Your task to perform on an android device: Add acer predator to the cart on walmart.com Image 0: 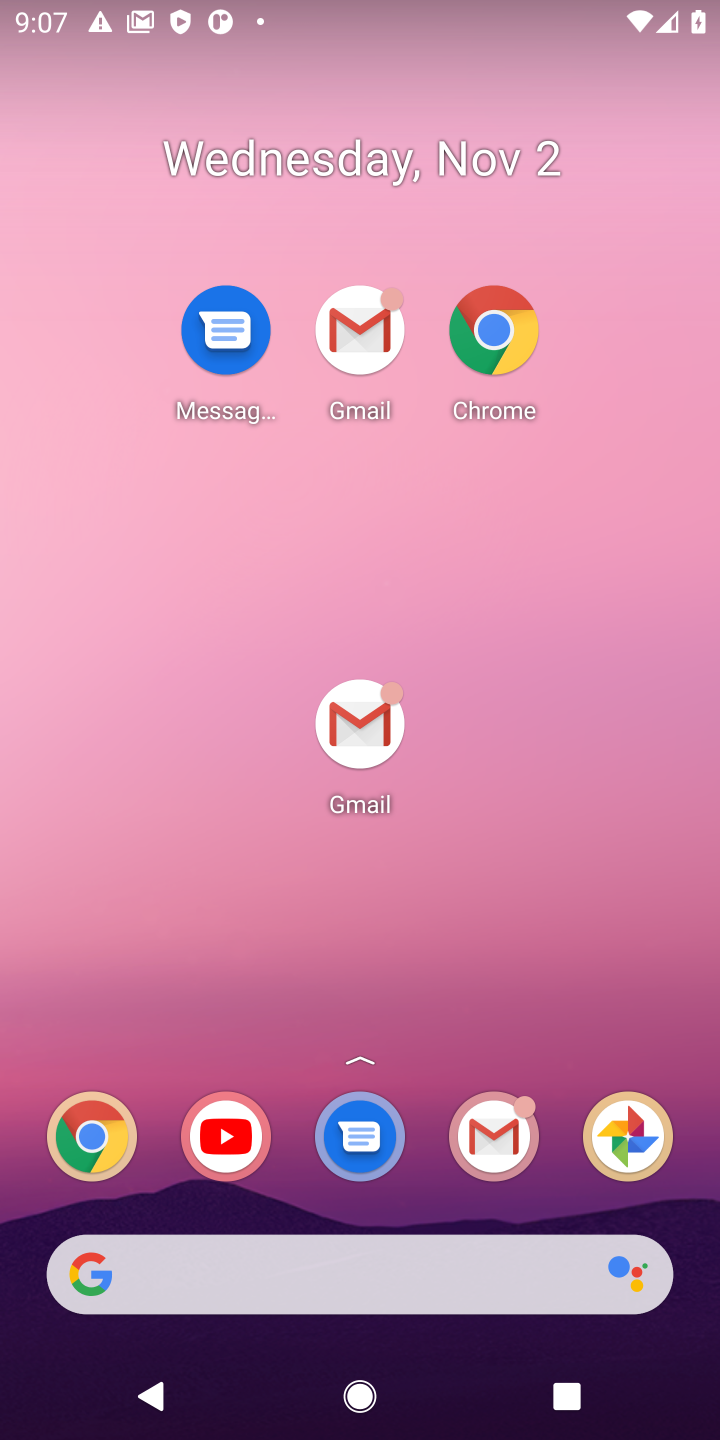
Step 0: drag from (216, 975) to (216, 389)
Your task to perform on an android device: Add acer predator to the cart on walmart.com Image 1: 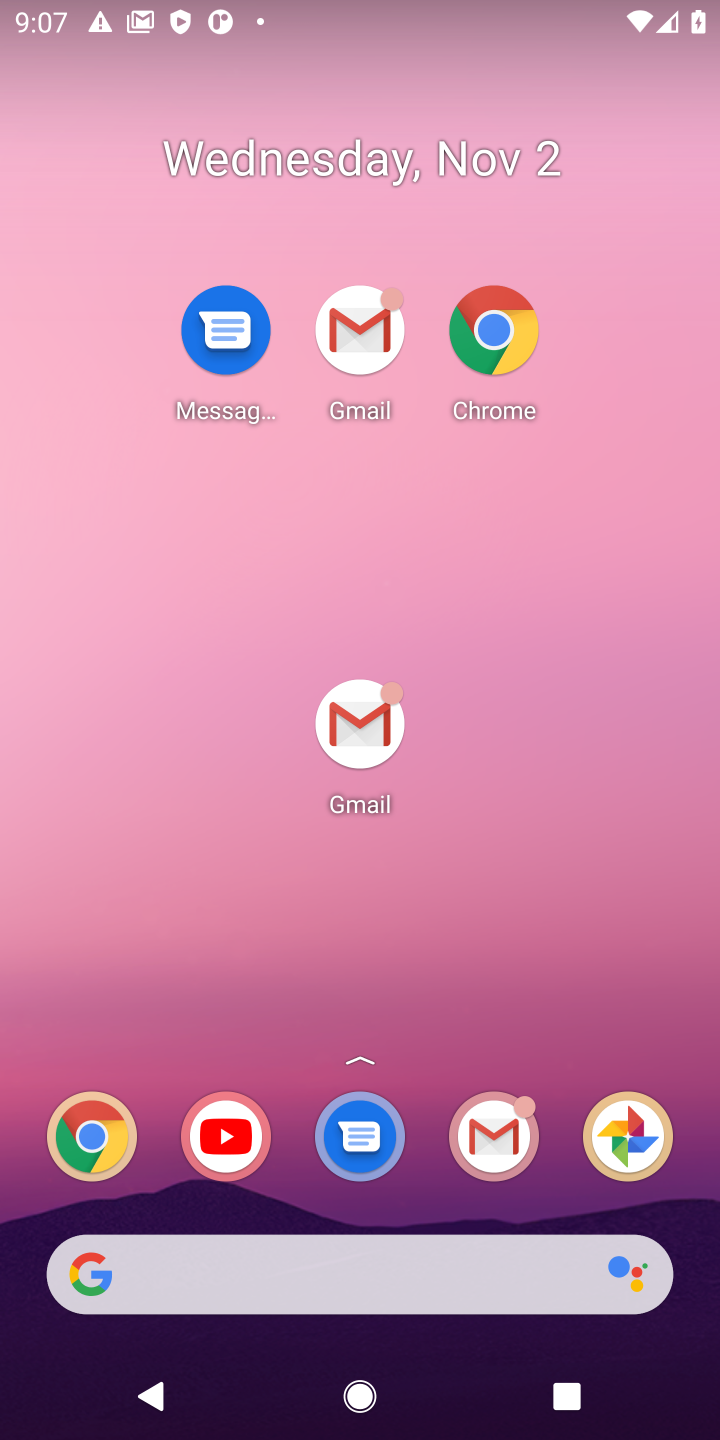
Step 1: drag from (272, 1182) to (283, 7)
Your task to perform on an android device: Add acer predator to the cart on walmart.com Image 2: 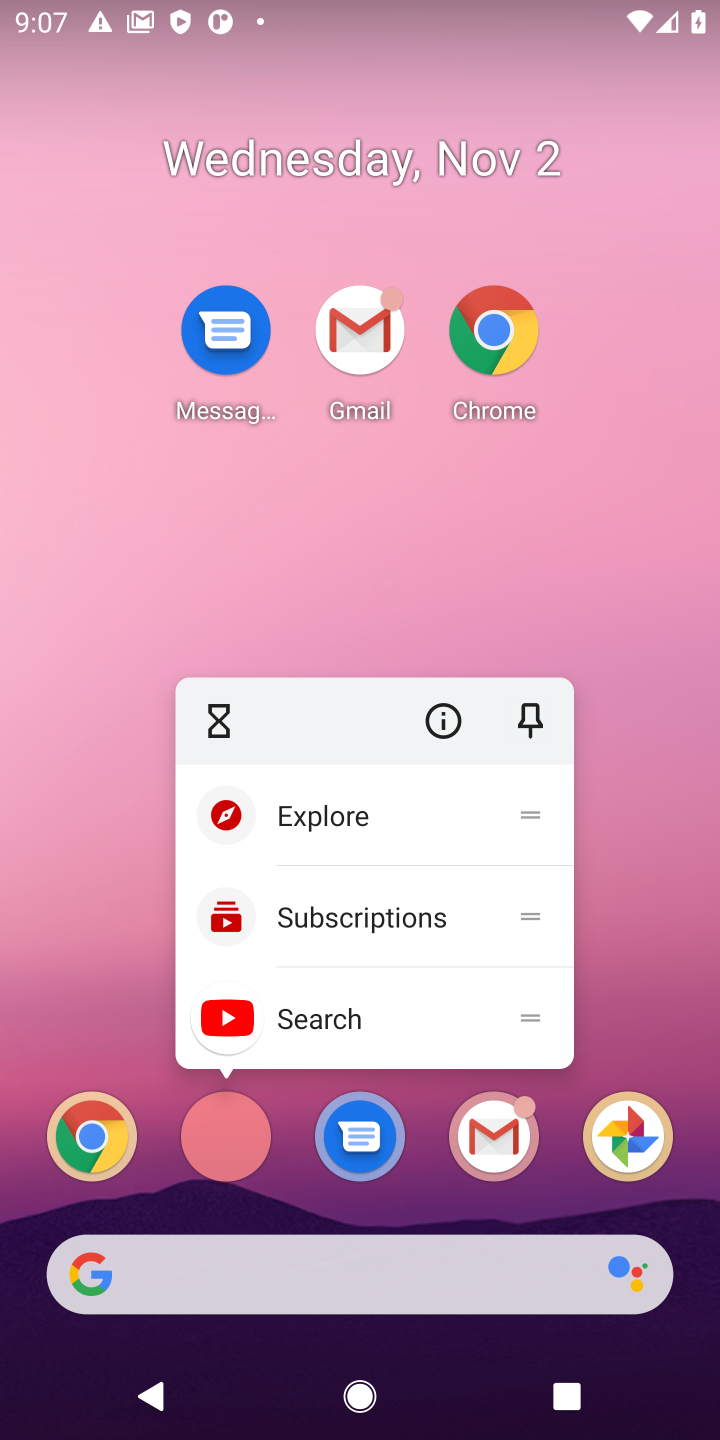
Step 2: click (117, 553)
Your task to perform on an android device: Add acer predator to the cart on walmart.com Image 3: 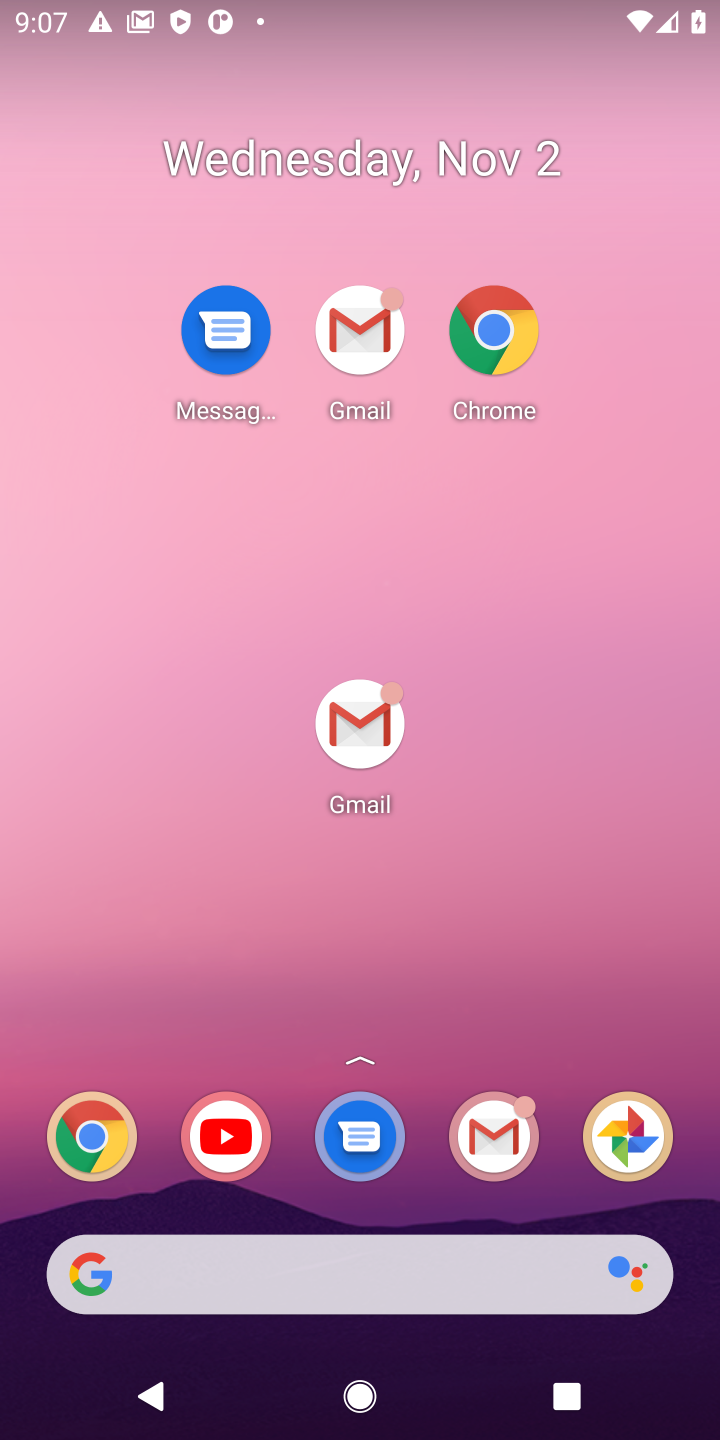
Step 3: drag from (290, 1238) to (277, 756)
Your task to perform on an android device: Add acer predator to the cart on walmart.com Image 4: 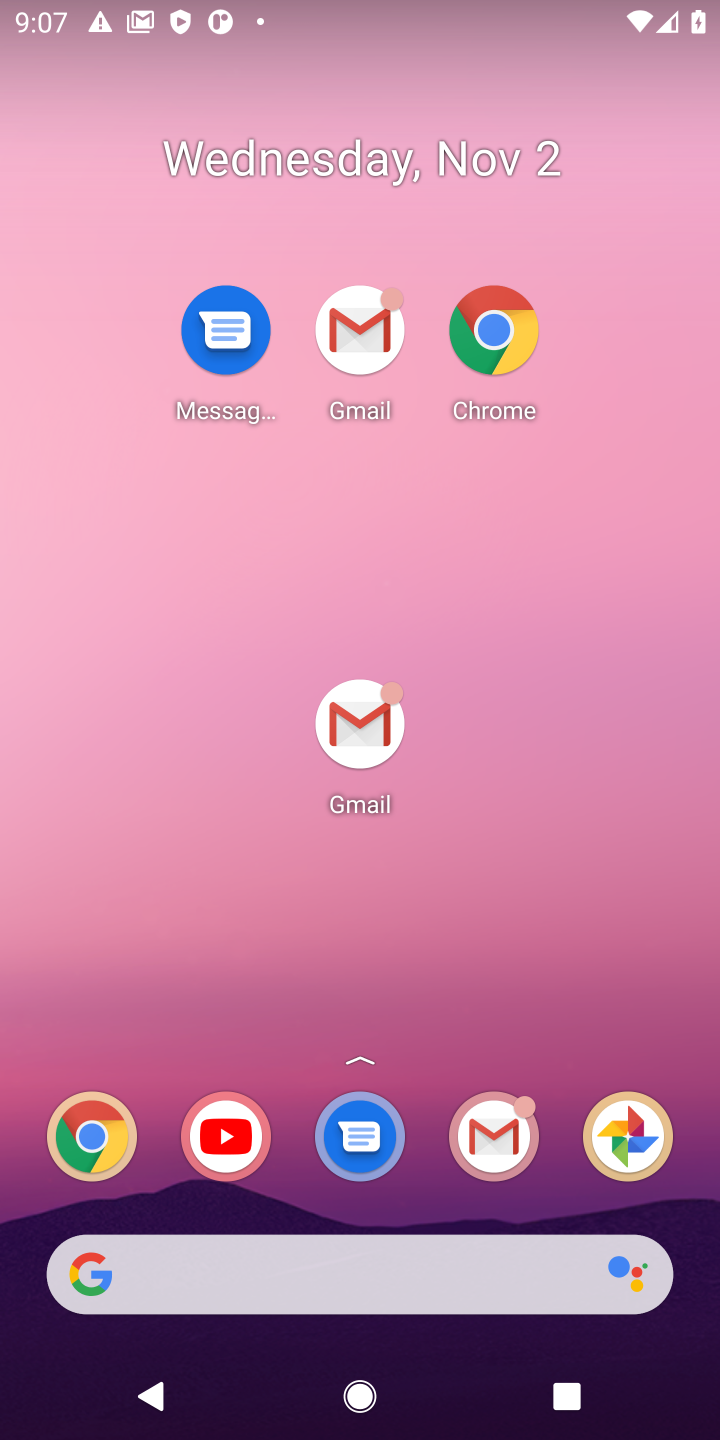
Step 4: drag from (283, 1164) to (310, 282)
Your task to perform on an android device: Add acer predator to the cart on walmart.com Image 5: 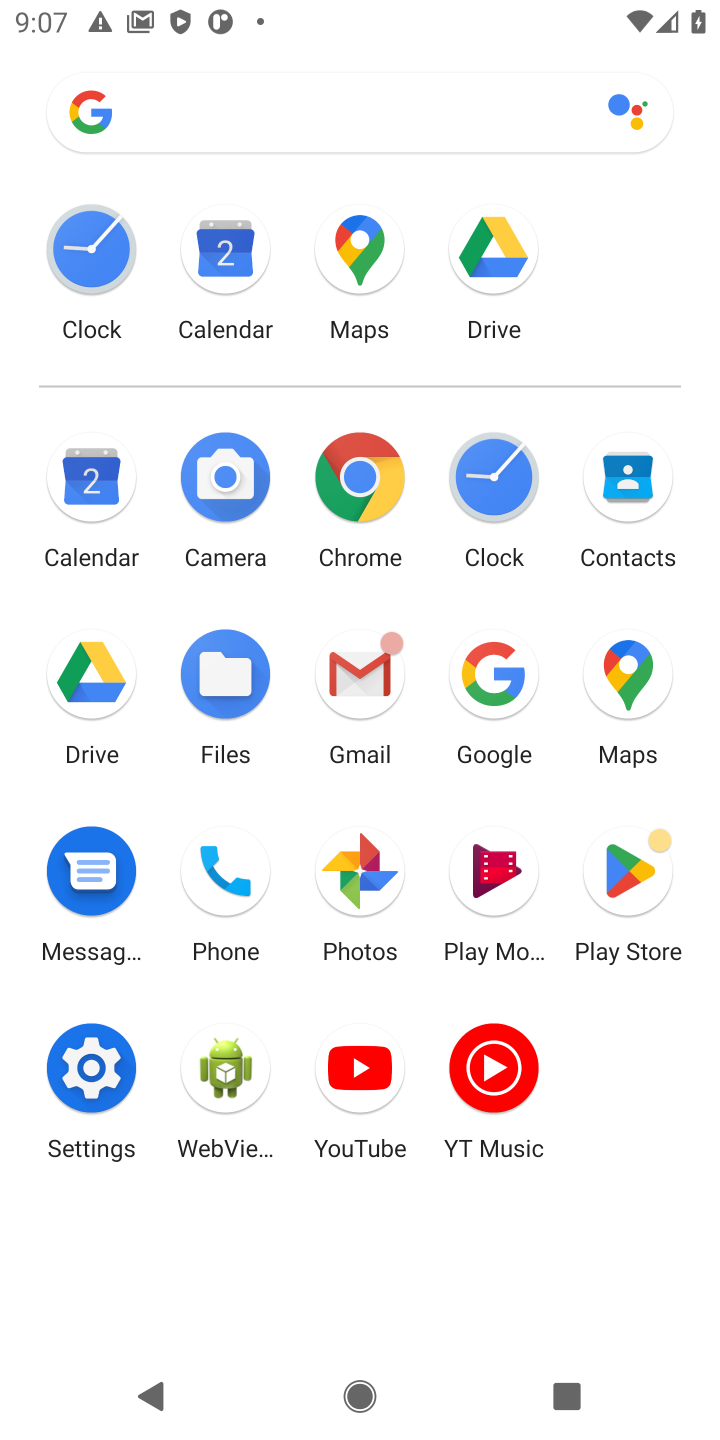
Step 5: click (477, 658)
Your task to perform on an android device: Add acer predator to the cart on walmart.com Image 6: 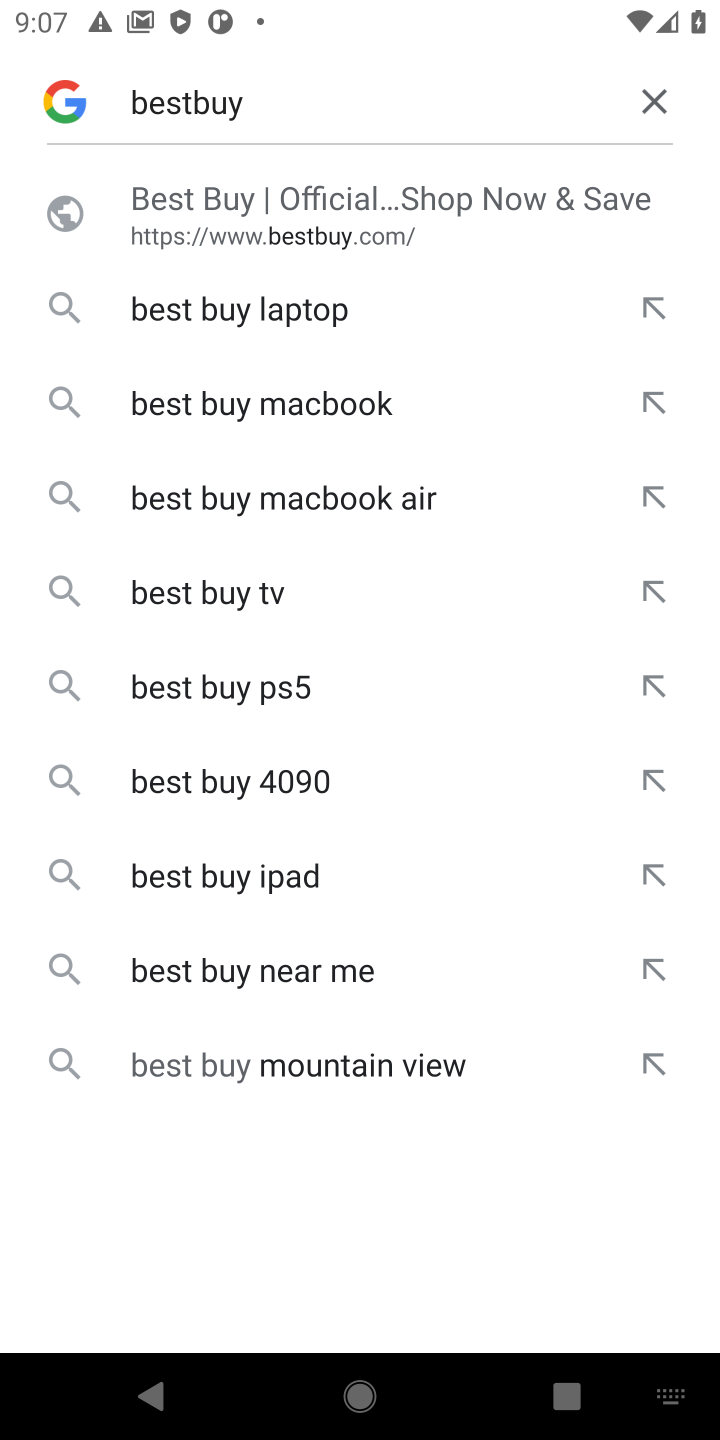
Step 6: click (651, 92)
Your task to perform on an android device: Add acer predator to the cart on walmart.com Image 7: 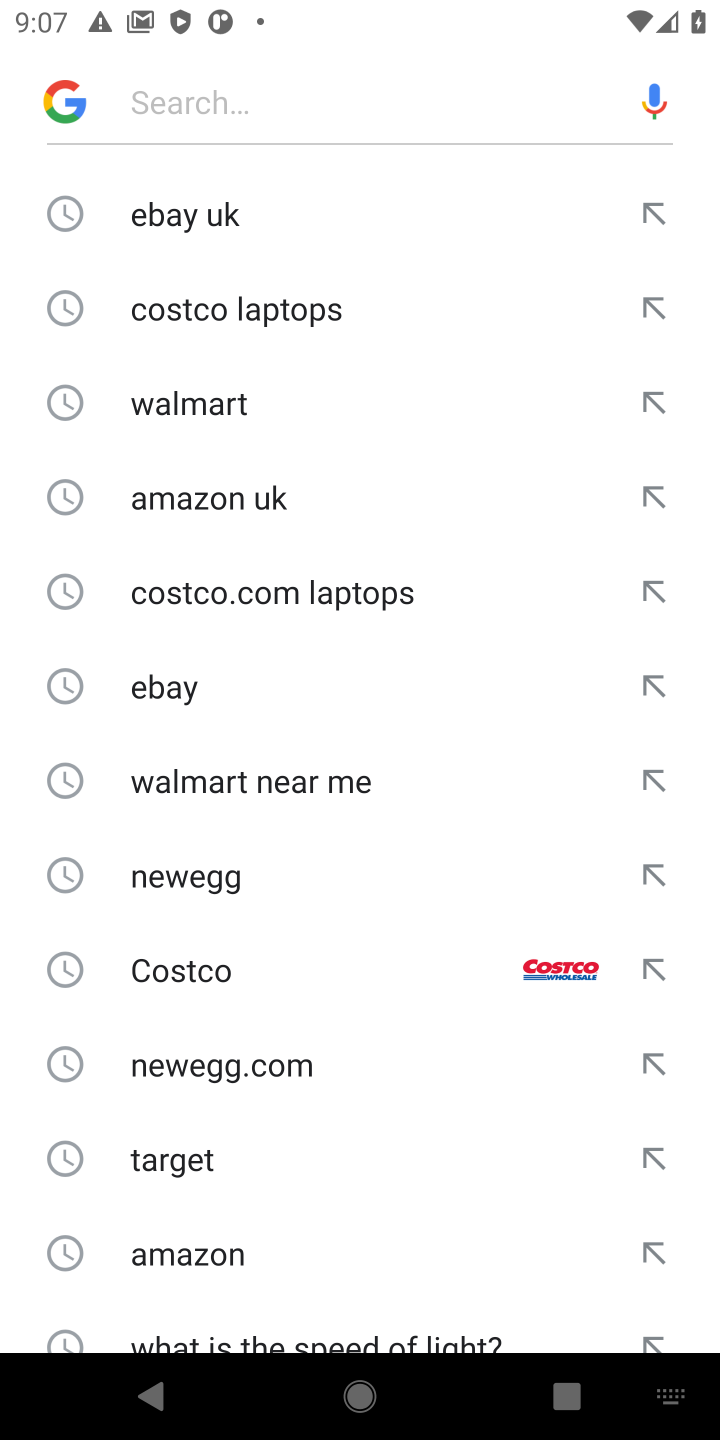
Step 7: click (314, 101)
Your task to perform on an android device: Add acer predator to the cart on walmart.com Image 8: 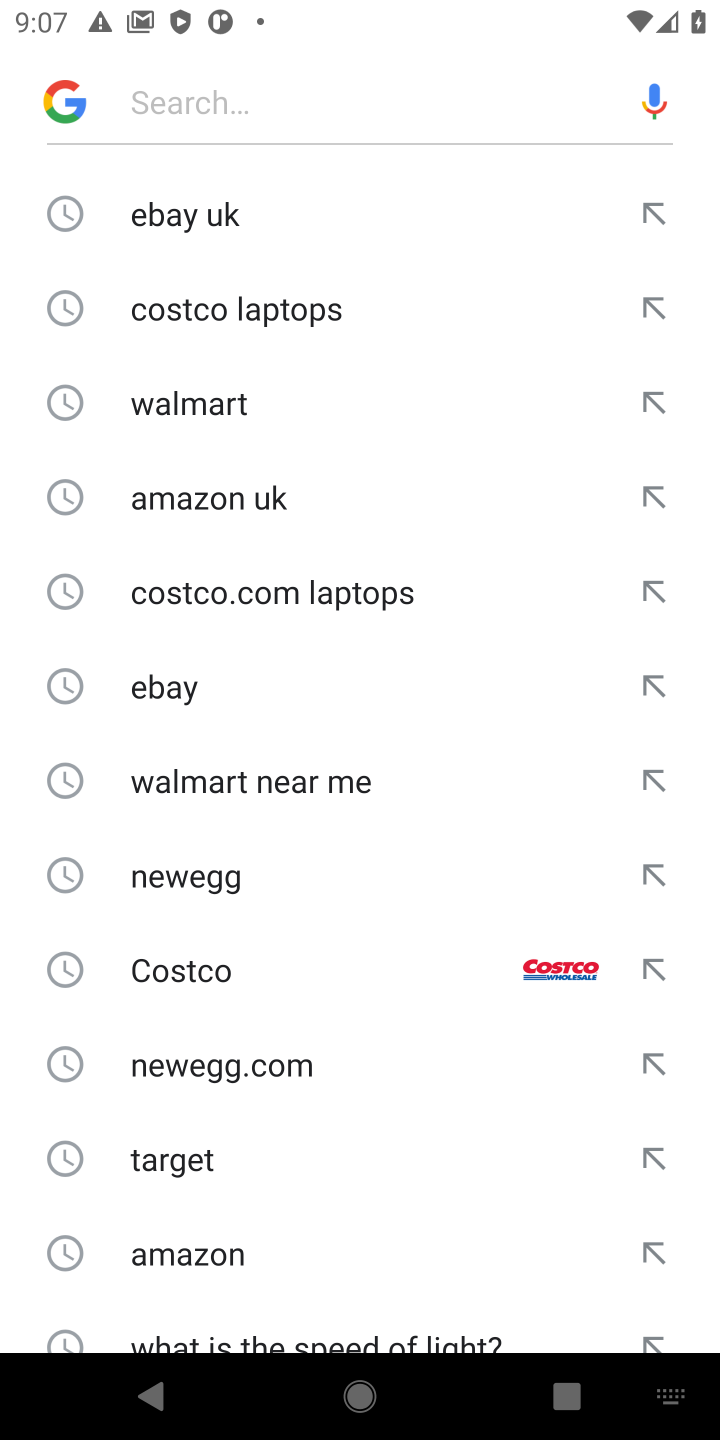
Step 8: type "walmart "
Your task to perform on an android device: Add acer predator to the cart on walmart.com Image 9: 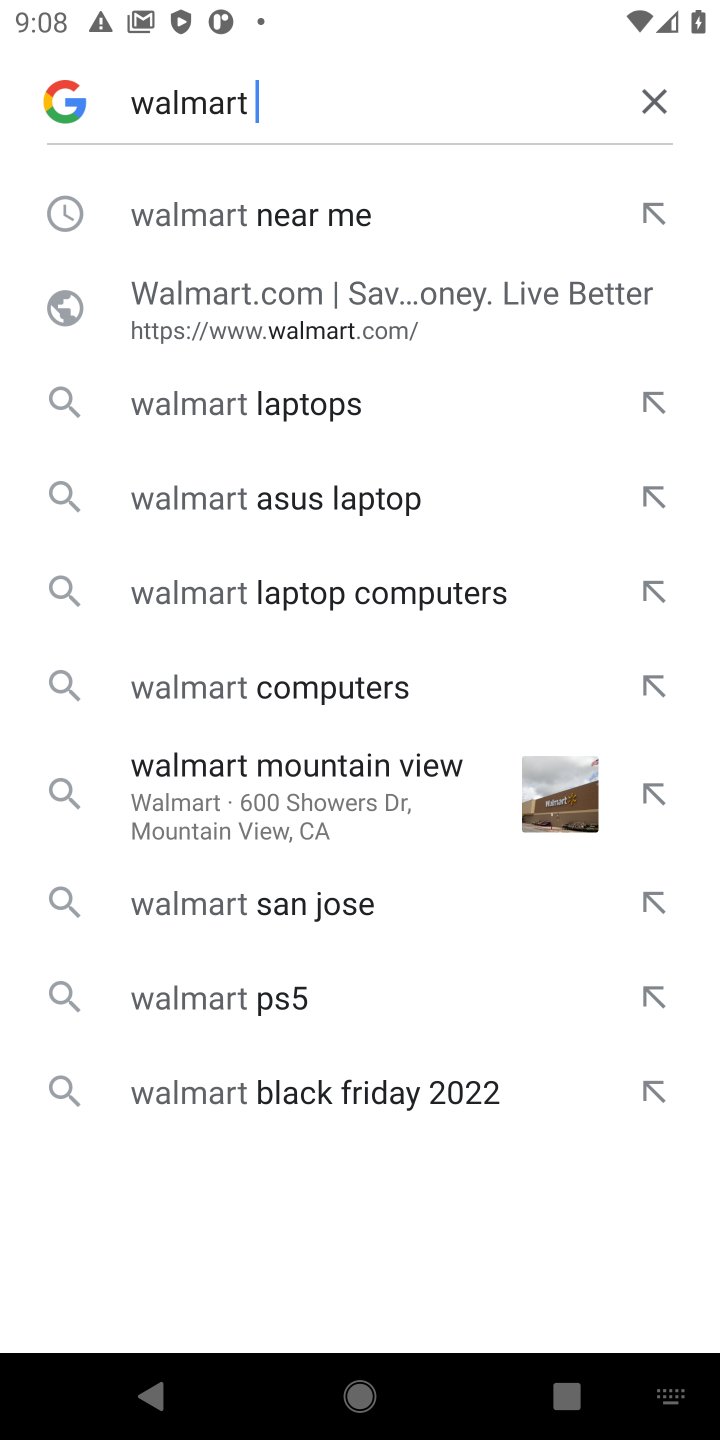
Step 9: click (282, 213)
Your task to perform on an android device: Add acer predator to the cart on walmart.com Image 10: 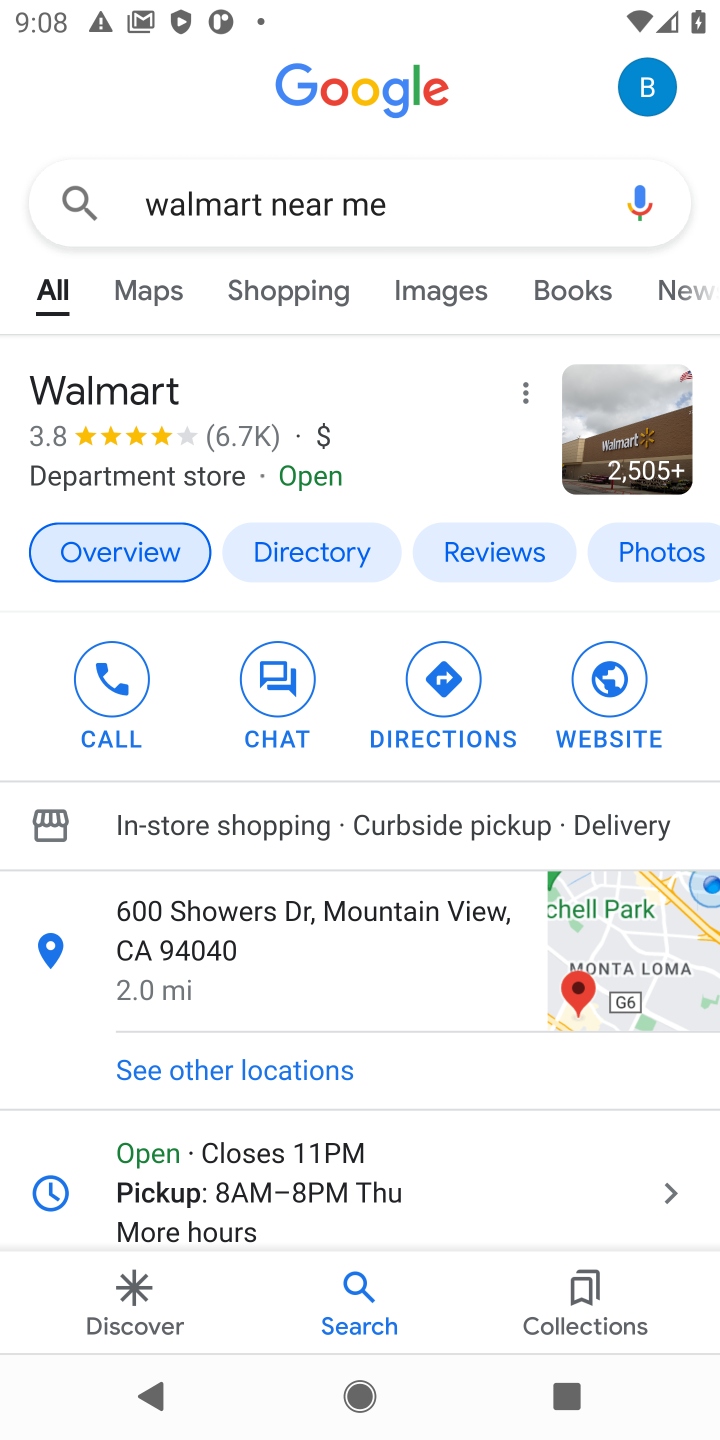
Step 10: drag from (316, 1165) to (410, 322)
Your task to perform on an android device: Add acer predator to the cart on walmart.com Image 11: 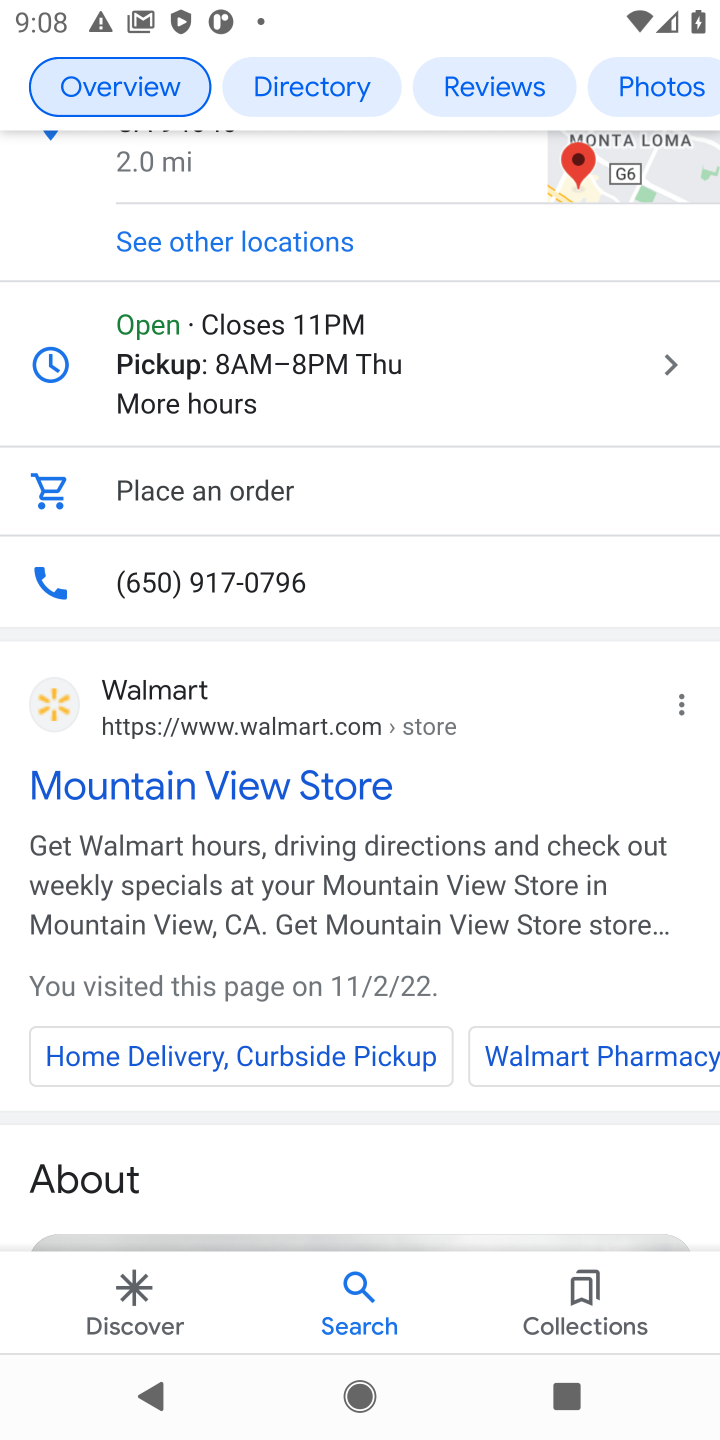
Step 11: click (59, 700)
Your task to perform on an android device: Add acer predator to the cart on walmart.com Image 12: 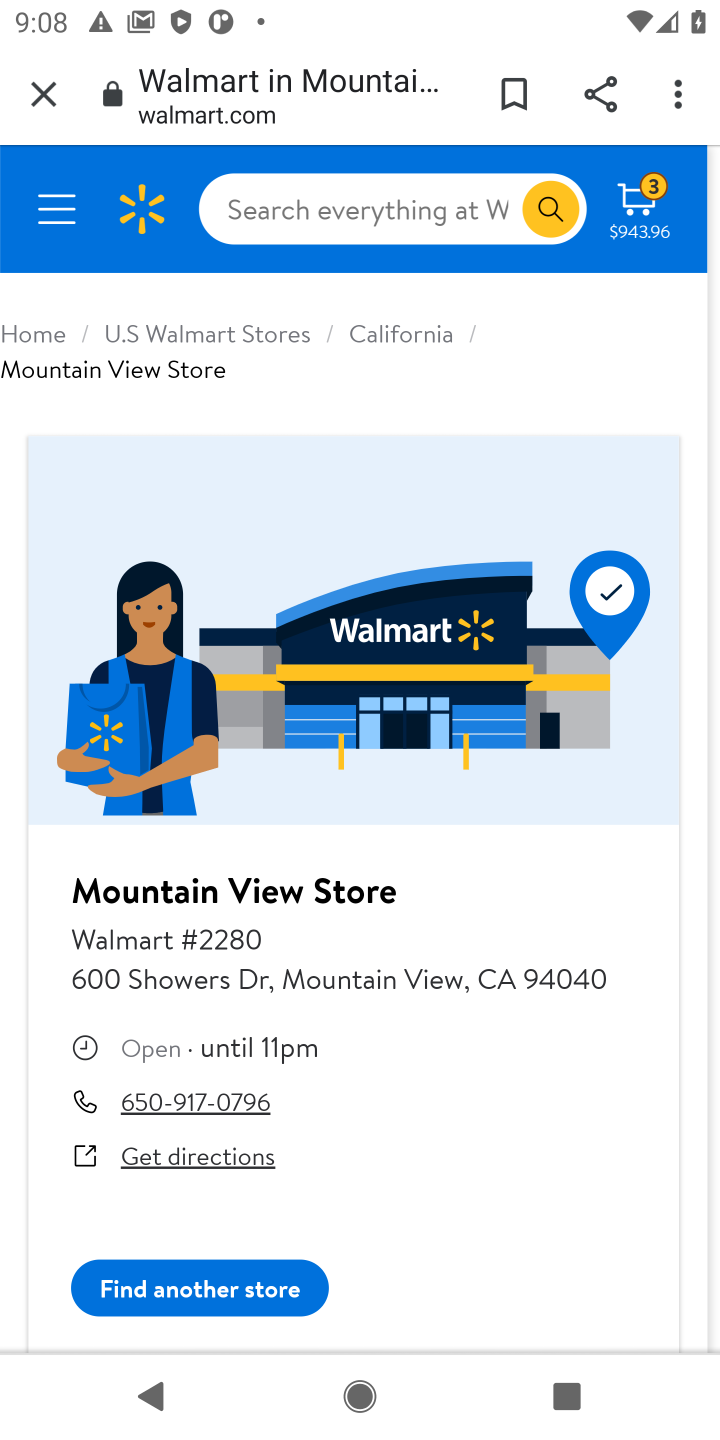
Step 12: click (359, 178)
Your task to perform on an android device: Add acer predator to the cart on walmart.com Image 13: 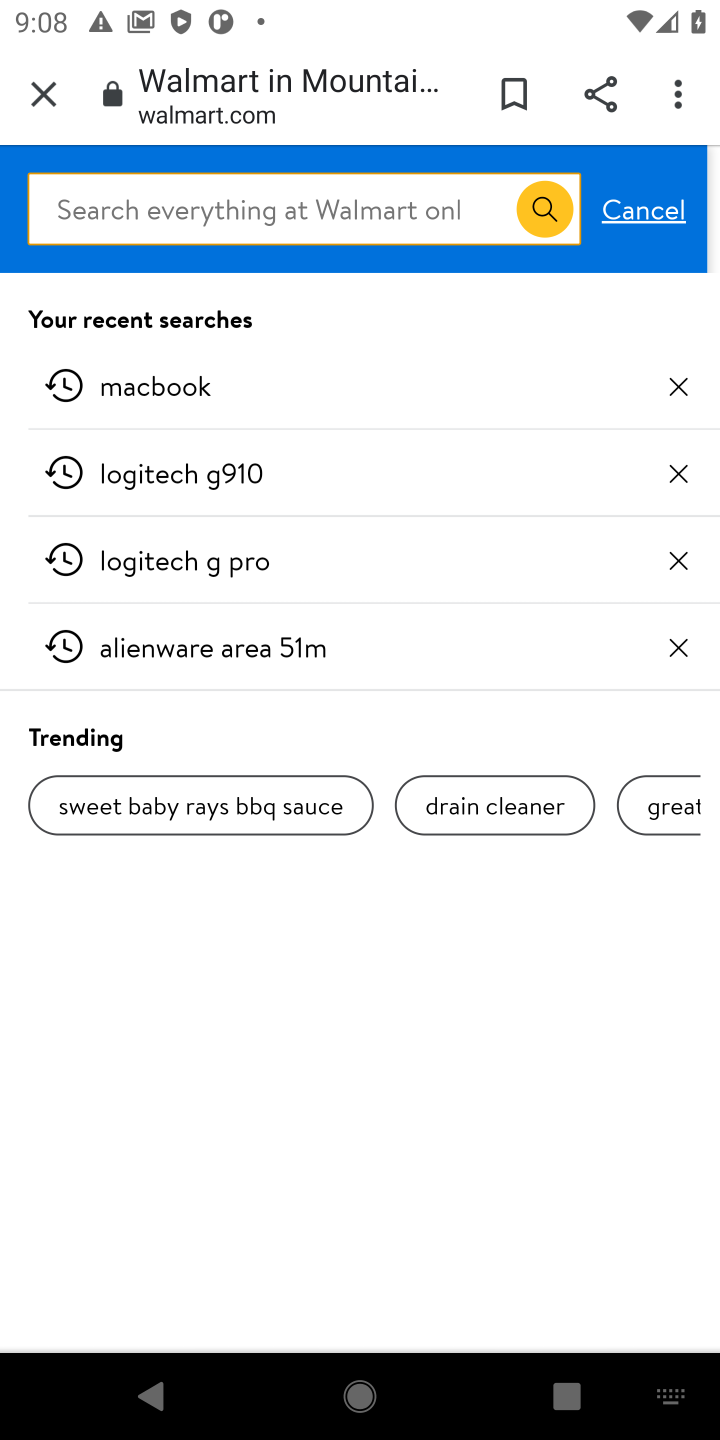
Step 13: click (339, 190)
Your task to perform on an android device: Add acer predator to the cart on walmart.com Image 14: 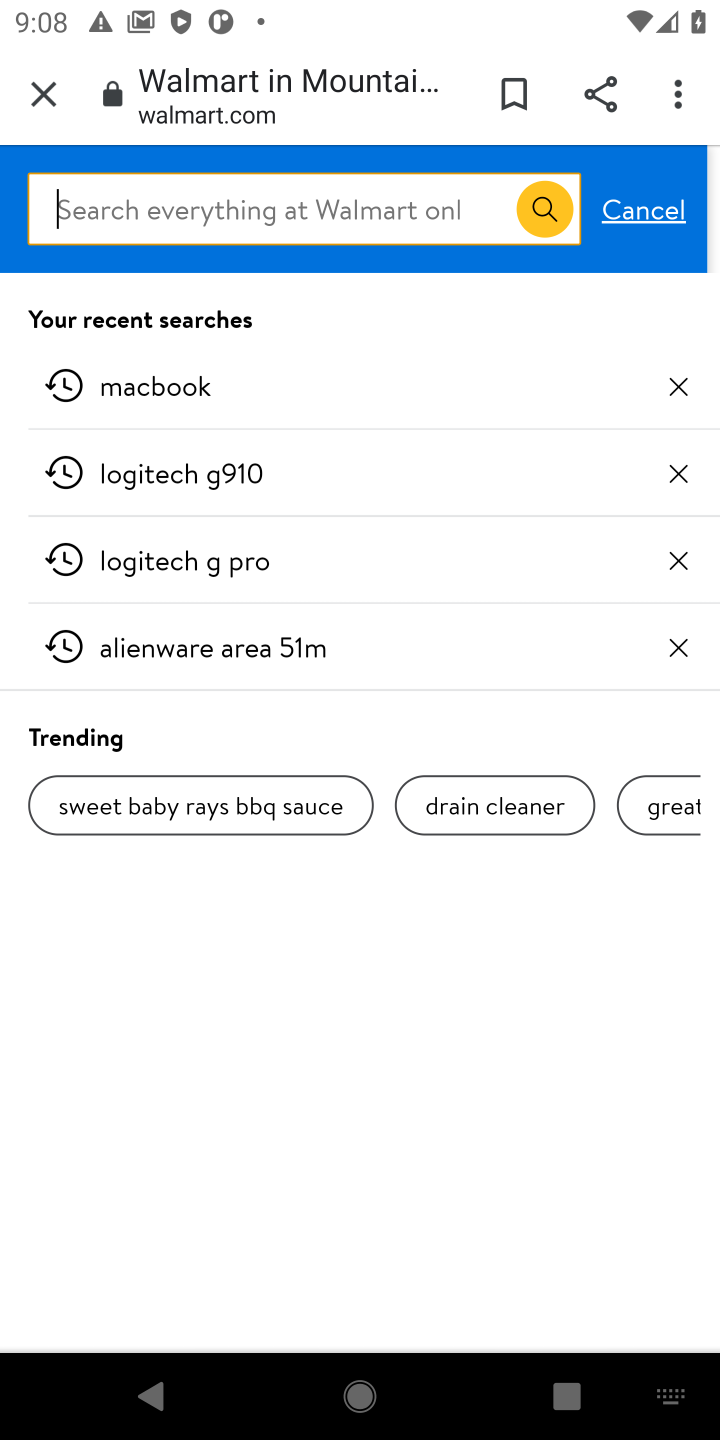
Step 14: type "acer predator "
Your task to perform on an android device: Add acer predator to the cart on walmart.com Image 15: 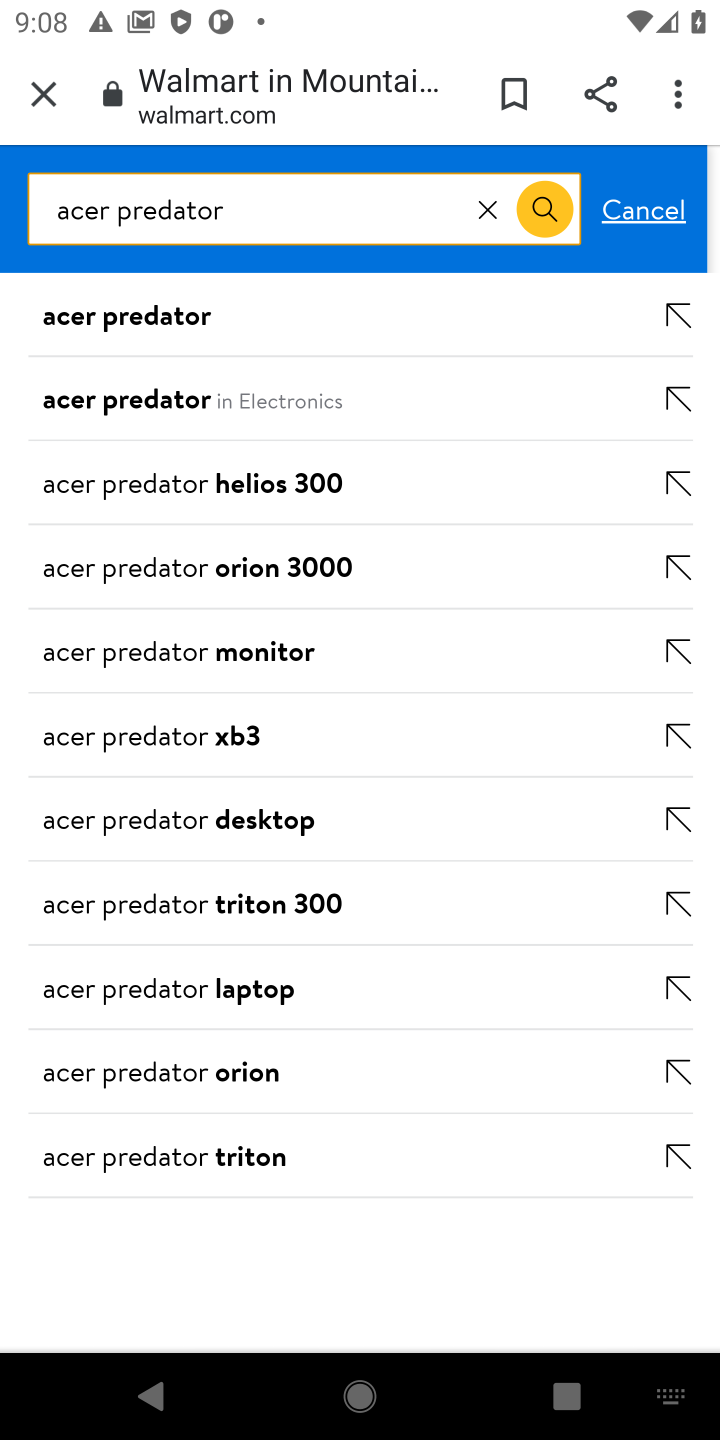
Step 15: click (178, 303)
Your task to perform on an android device: Add acer predator to the cart on walmart.com Image 16: 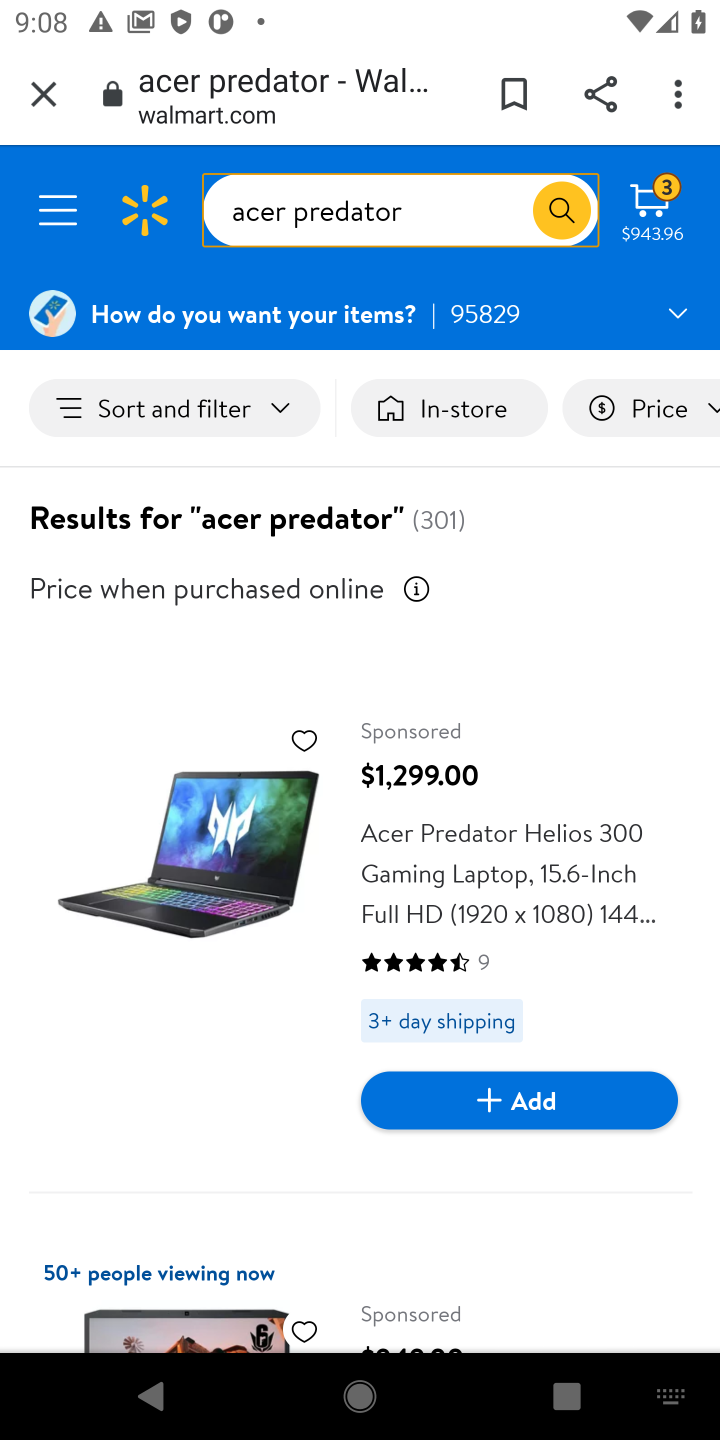
Step 16: click (522, 1082)
Your task to perform on an android device: Add acer predator to the cart on walmart.com Image 17: 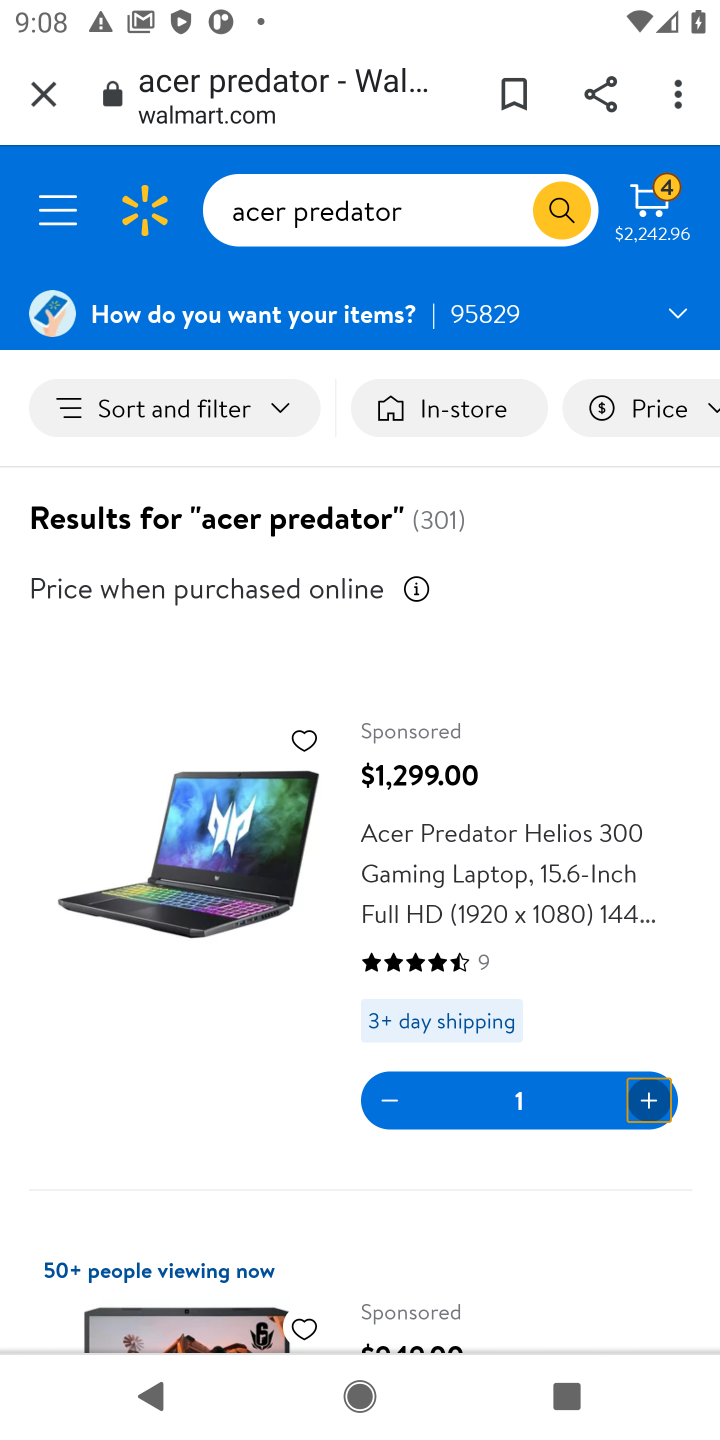
Step 17: task complete